Your task to perform on an android device: set the stopwatch Image 0: 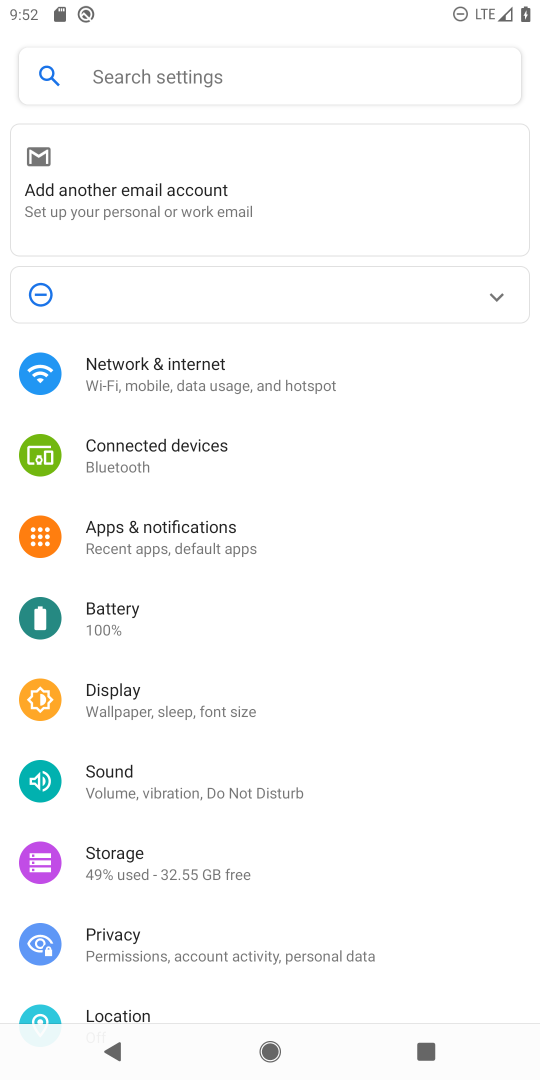
Step 0: press home button
Your task to perform on an android device: set the stopwatch Image 1: 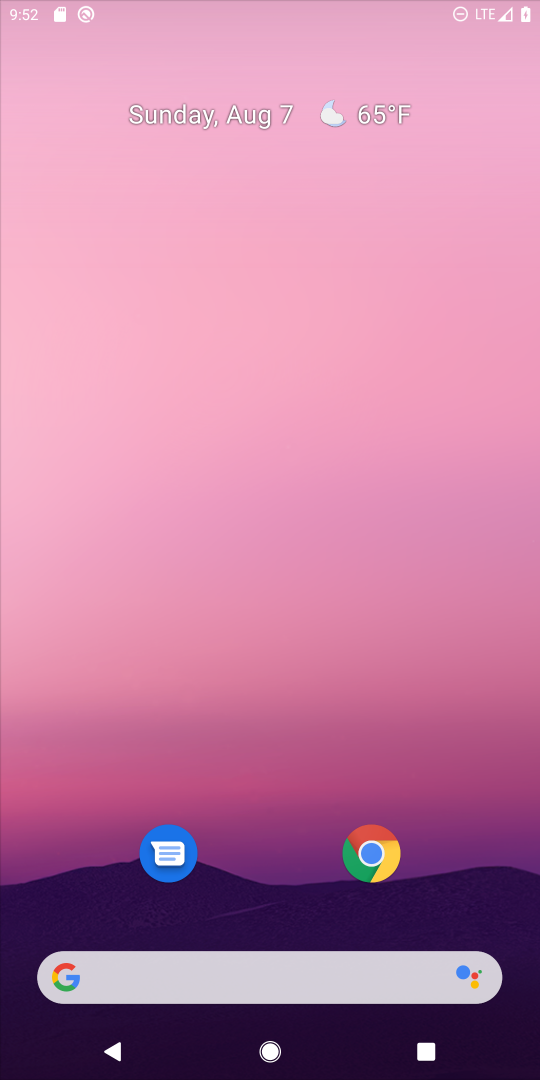
Step 1: drag from (227, 949) to (345, 91)
Your task to perform on an android device: set the stopwatch Image 2: 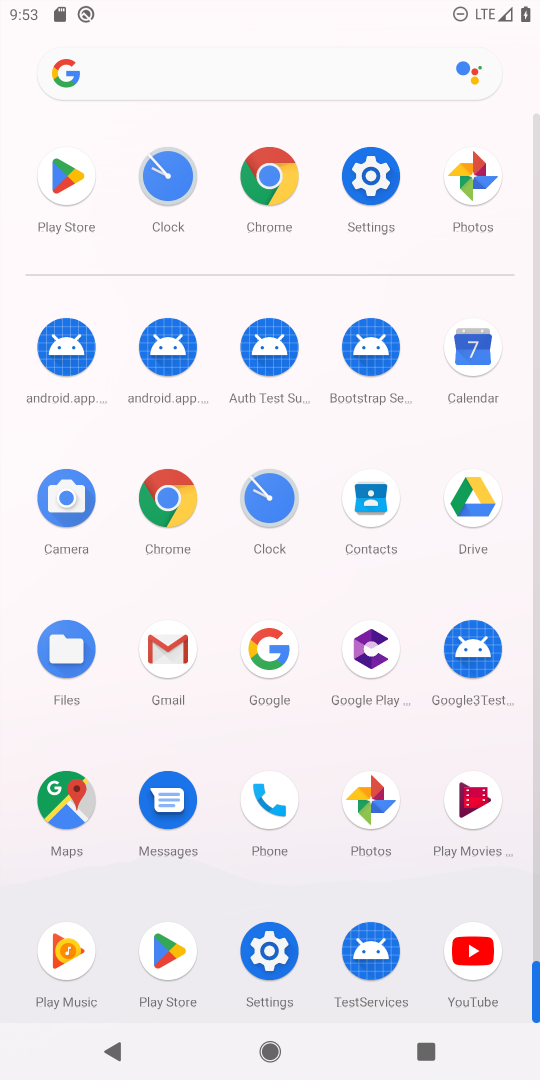
Step 2: click (276, 480)
Your task to perform on an android device: set the stopwatch Image 3: 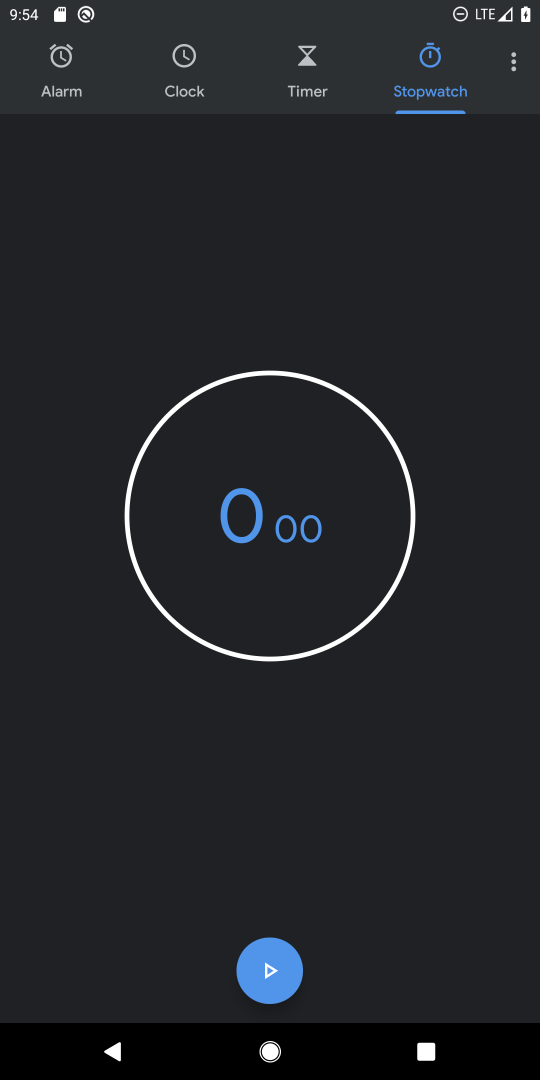
Step 3: task complete